Your task to perform on an android device: Turn off the flashlight Image 0: 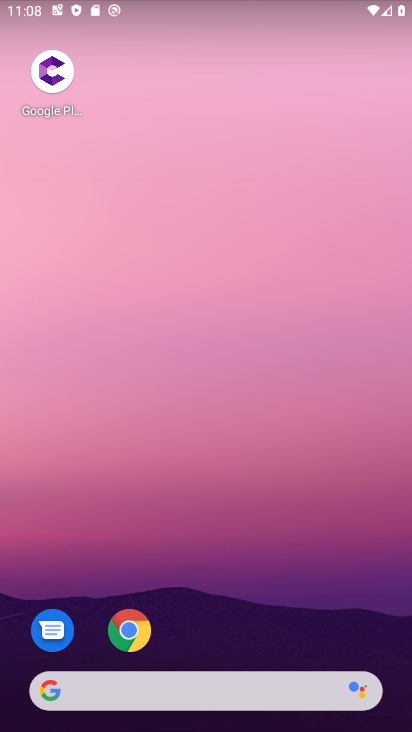
Step 0: drag from (332, 4) to (230, 429)
Your task to perform on an android device: Turn off the flashlight Image 1: 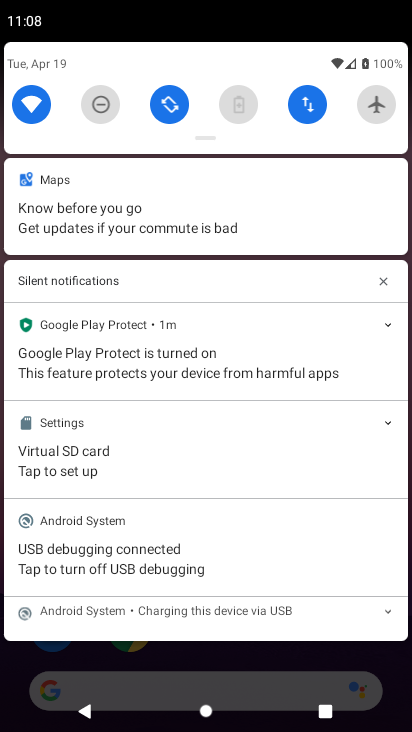
Step 1: drag from (207, 124) to (178, 430)
Your task to perform on an android device: Turn off the flashlight Image 2: 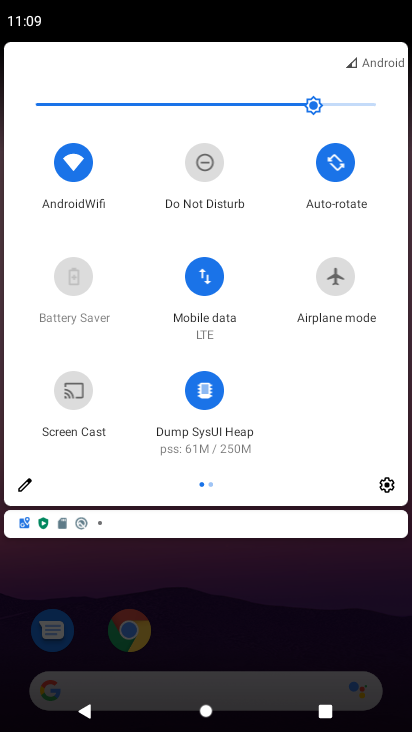
Step 2: drag from (335, 411) to (86, 381)
Your task to perform on an android device: Turn off the flashlight Image 3: 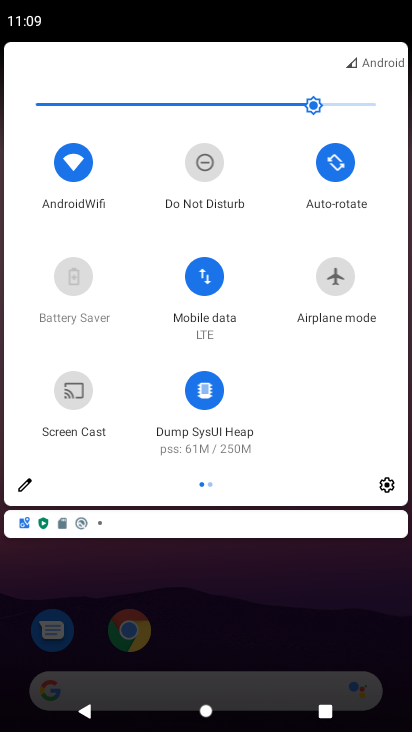
Step 3: click (32, 485)
Your task to perform on an android device: Turn off the flashlight Image 4: 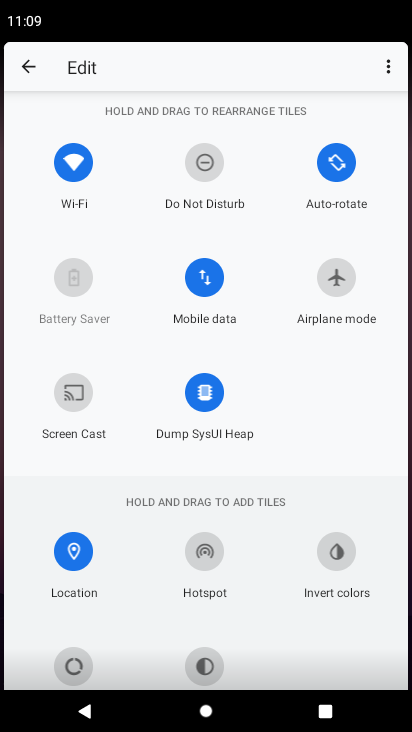
Step 4: task complete